Your task to perform on an android device: toggle sleep mode Image 0: 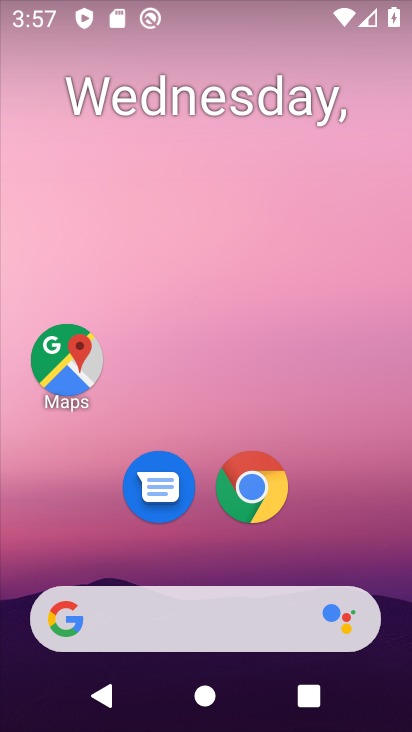
Step 0: drag from (220, 563) to (201, 7)
Your task to perform on an android device: toggle sleep mode Image 1: 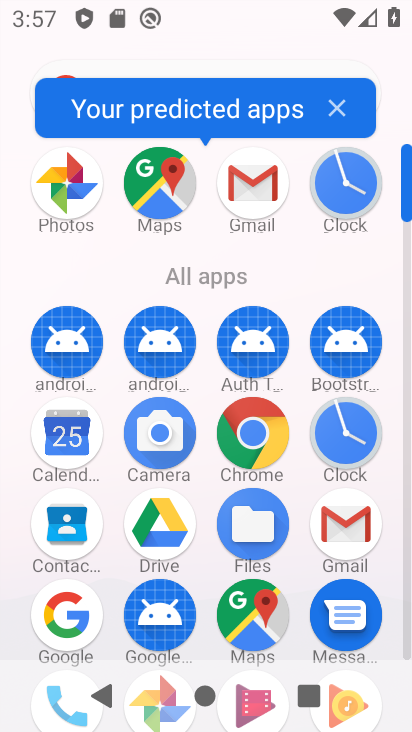
Step 1: drag from (206, 574) to (216, 93)
Your task to perform on an android device: toggle sleep mode Image 2: 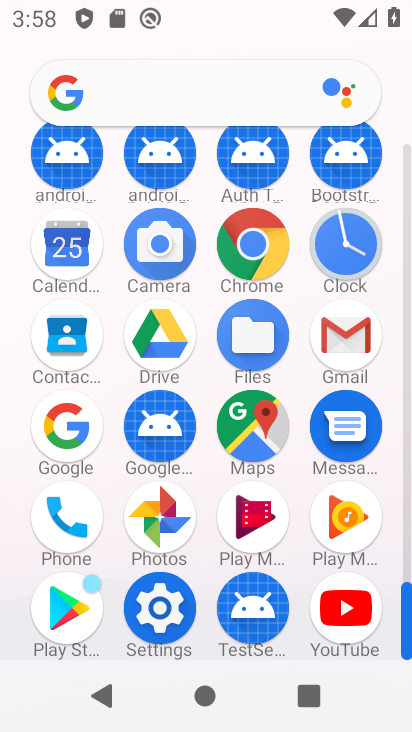
Step 2: click (161, 607)
Your task to perform on an android device: toggle sleep mode Image 3: 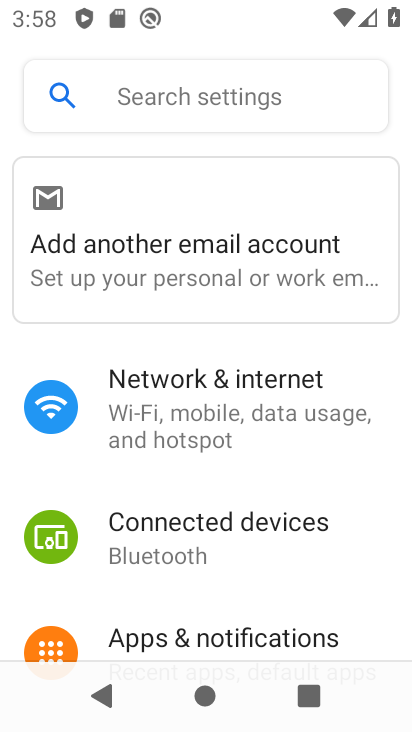
Step 3: drag from (238, 593) to (277, 97)
Your task to perform on an android device: toggle sleep mode Image 4: 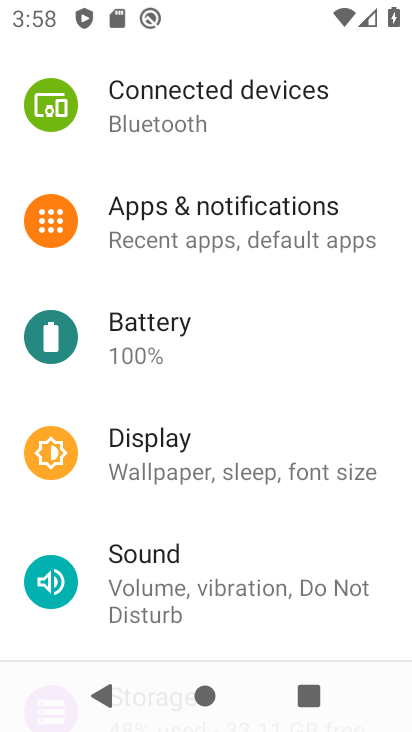
Step 4: click (173, 431)
Your task to perform on an android device: toggle sleep mode Image 5: 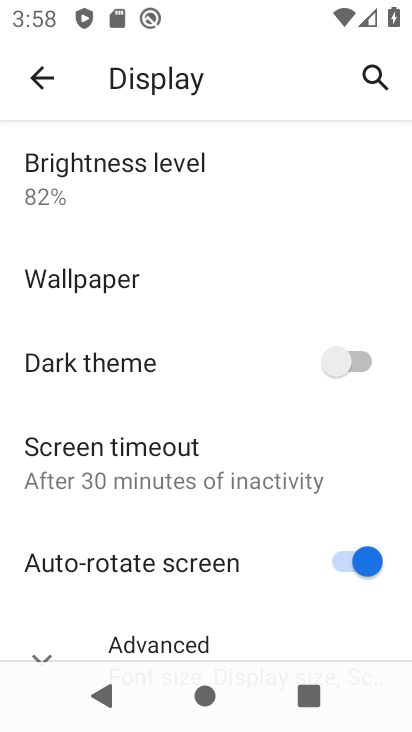
Step 5: drag from (156, 587) to (153, 117)
Your task to perform on an android device: toggle sleep mode Image 6: 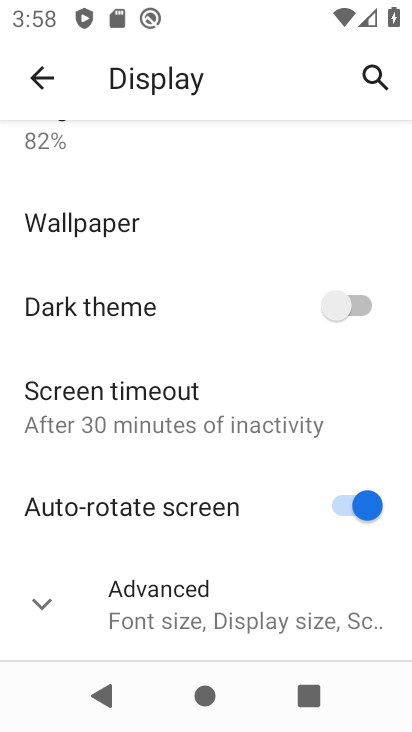
Step 6: click (73, 600)
Your task to perform on an android device: toggle sleep mode Image 7: 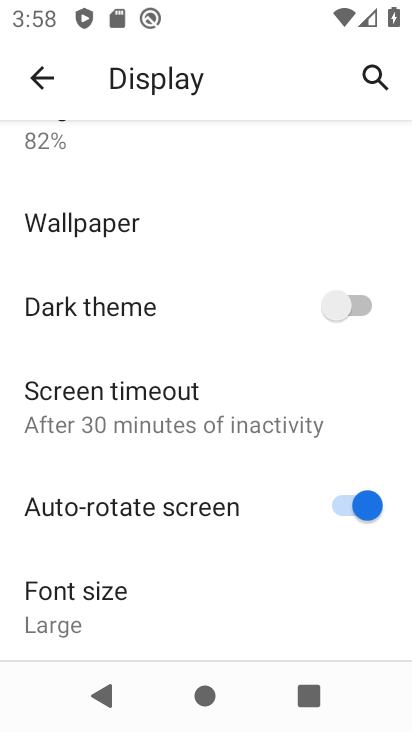
Step 7: task complete